Your task to perform on an android device: open app "PUBG MOBILE" (install if not already installed) and go to login screen Image 0: 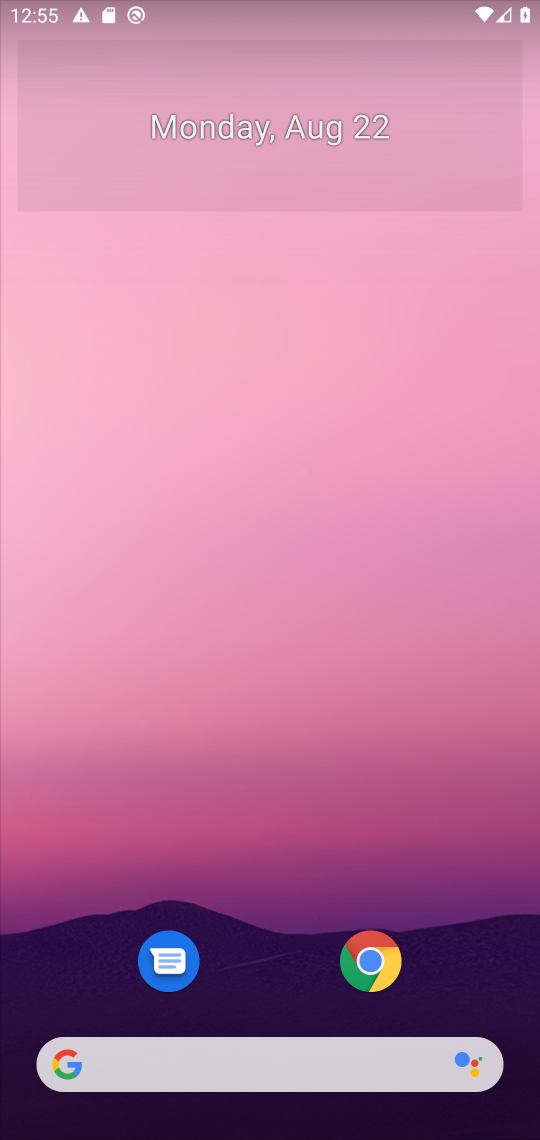
Step 0: press home button
Your task to perform on an android device: open app "PUBG MOBILE" (install if not already installed) and go to login screen Image 1: 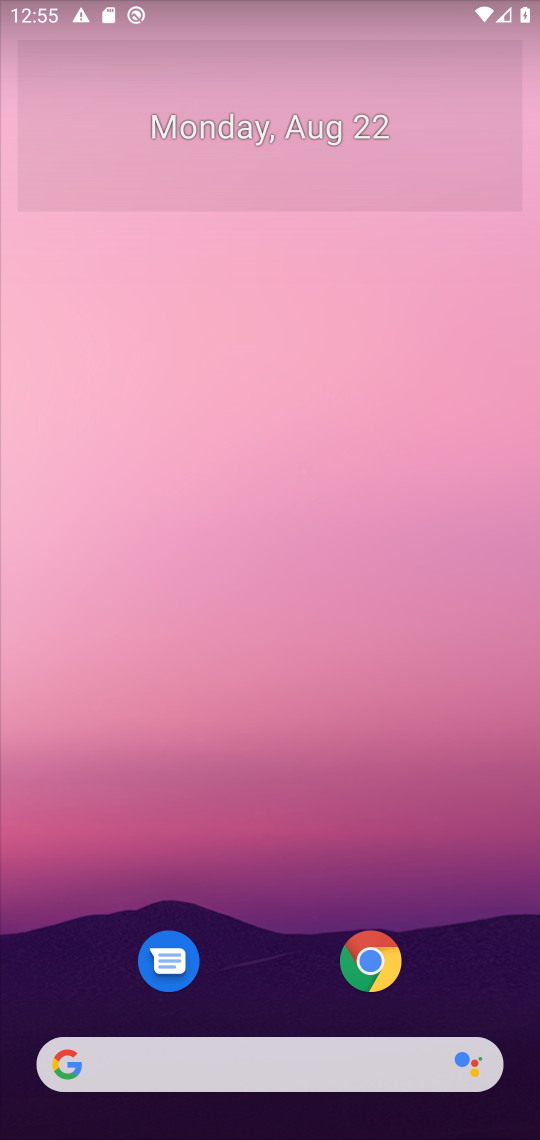
Step 1: drag from (486, 803) to (496, 112)
Your task to perform on an android device: open app "PUBG MOBILE" (install if not already installed) and go to login screen Image 2: 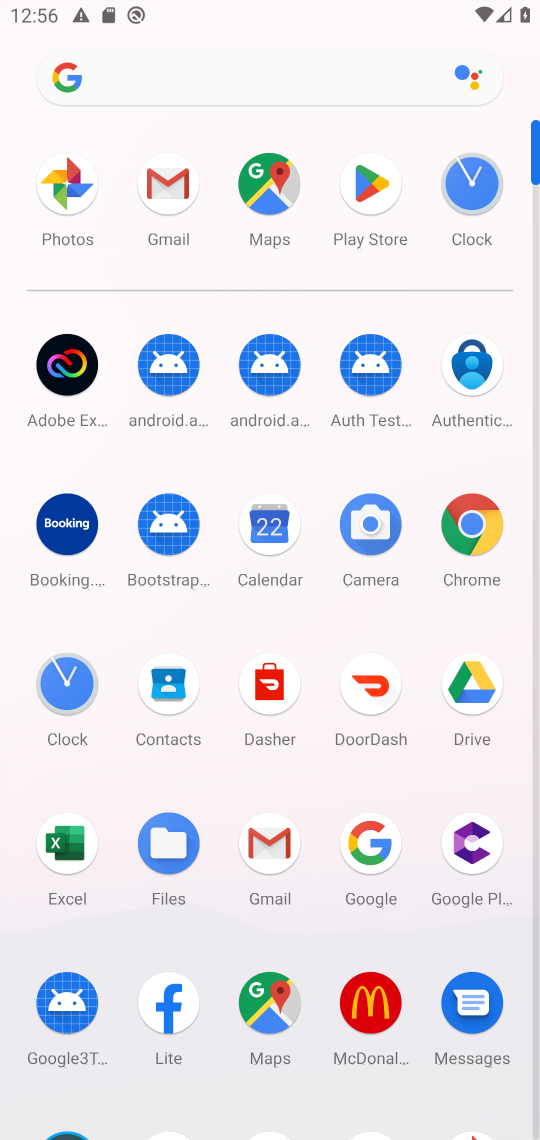
Step 2: click (372, 184)
Your task to perform on an android device: open app "PUBG MOBILE" (install if not already installed) and go to login screen Image 3: 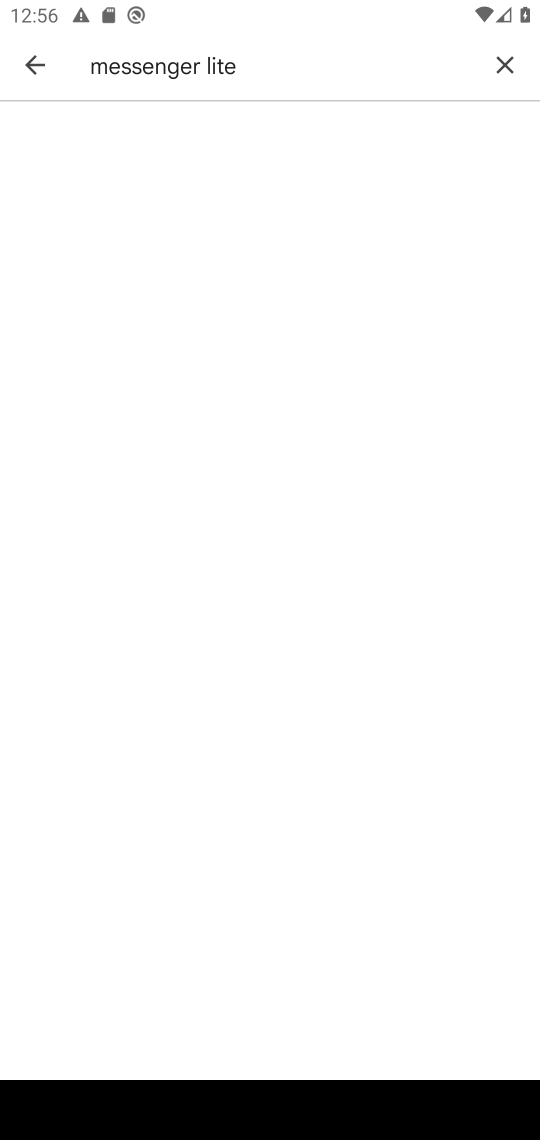
Step 3: press back button
Your task to perform on an android device: open app "PUBG MOBILE" (install if not already installed) and go to login screen Image 4: 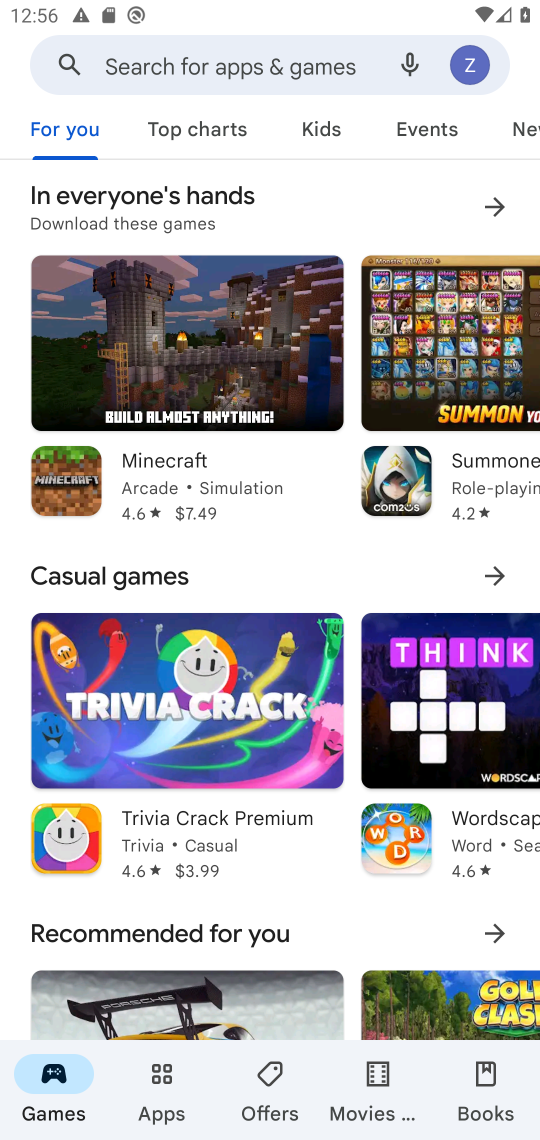
Step 4: click (292, 66)
Your task to perform on an android device: open app "PUBG MOBILE" (install if not already installed) and go to login screen Image 5: 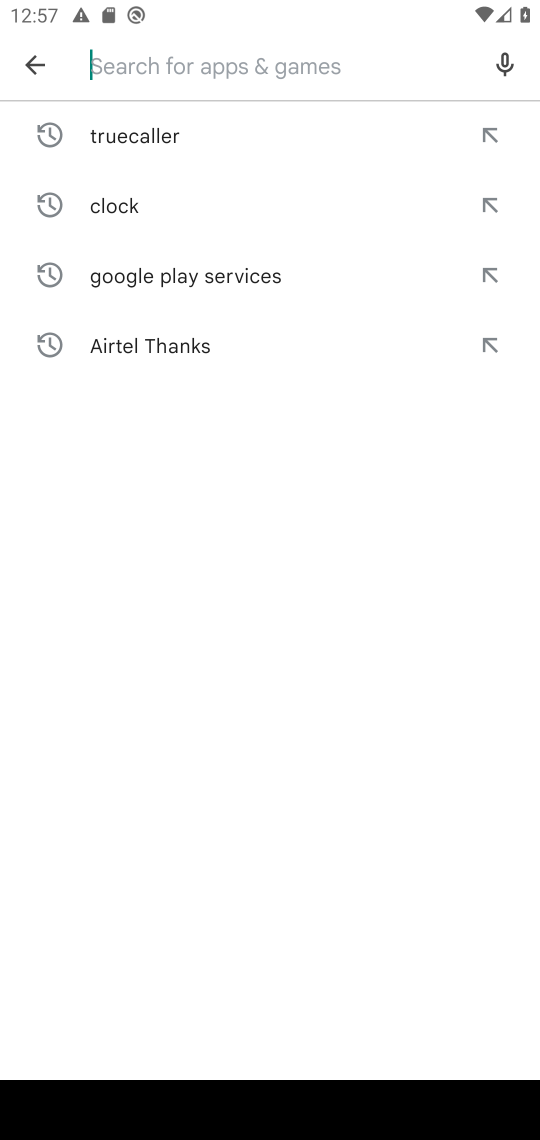
Step 5: type "PUBG MOBILE"
Your task to perform on an android device: open app "PUBG MOBILE" (install if not already installed) and go to login screen Image 6: 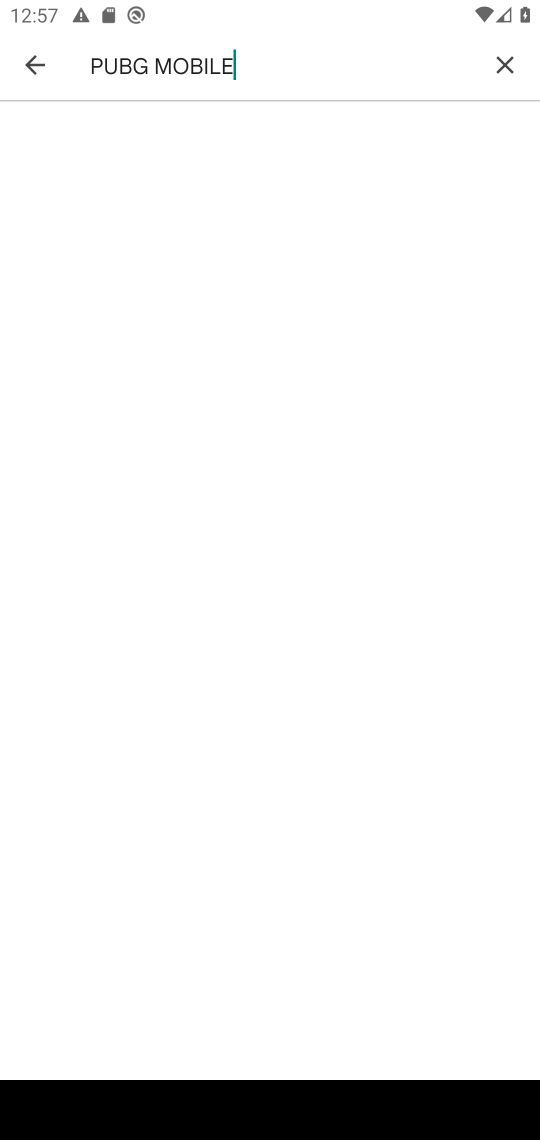
Step 6: press enter
Your task to perform on an android device: open app "PUBG MOBILE" (install if not already installed) and go to login screen Image 7: 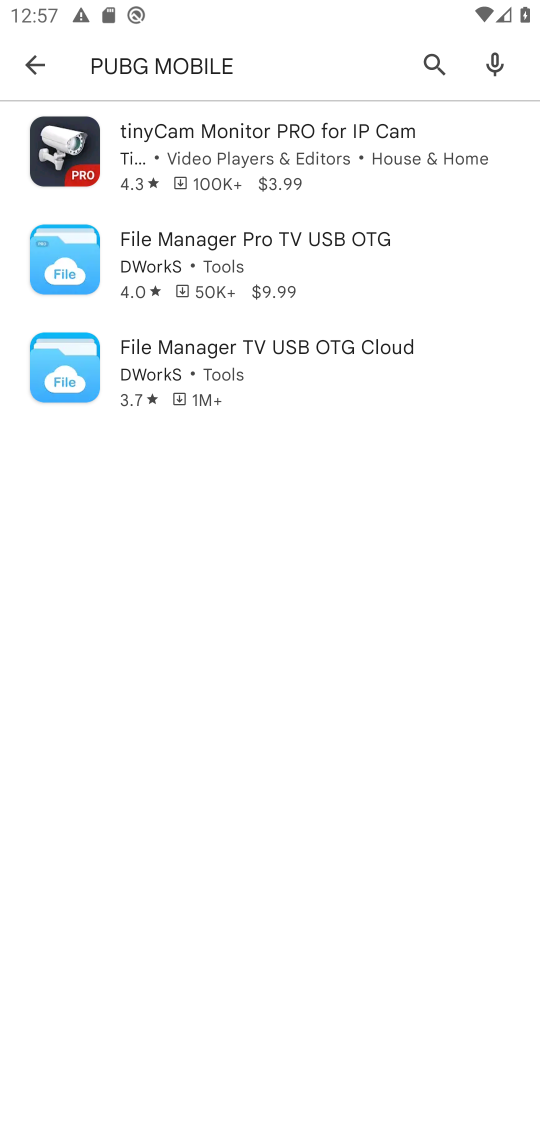
Step 7: task complete